Your task to perform on an android device: Open Google Chrome Image 0: 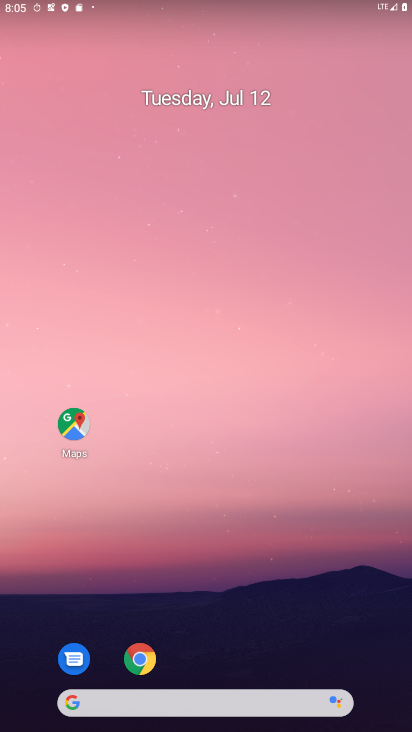
Step 0: drag from (382, 632) to (271, 58)
Your task to perform on an android device: Open Google Chrome Image 1: 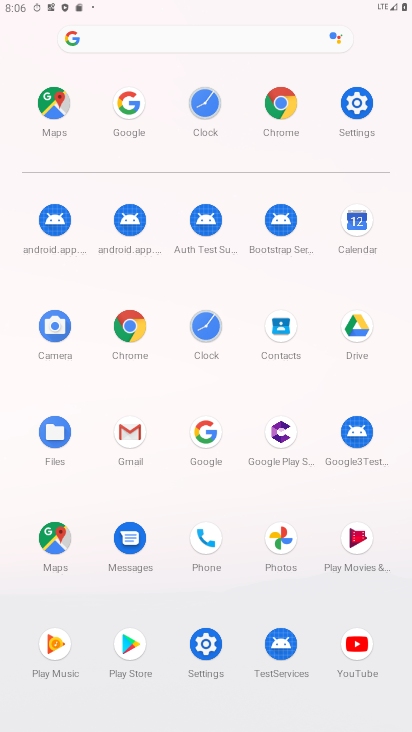
Step 1: click (134, 337)
Your task to perform on an android device: Open Google Chrome Image 2: 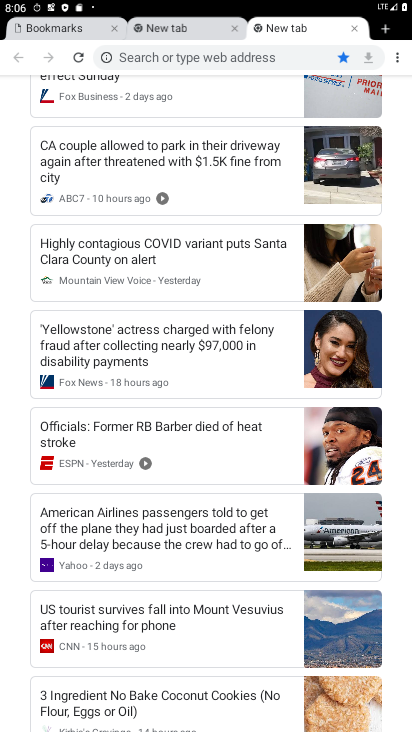
Step 2: task complete